Your task to perform on an android device: turn off notifications in google photos Image 0: 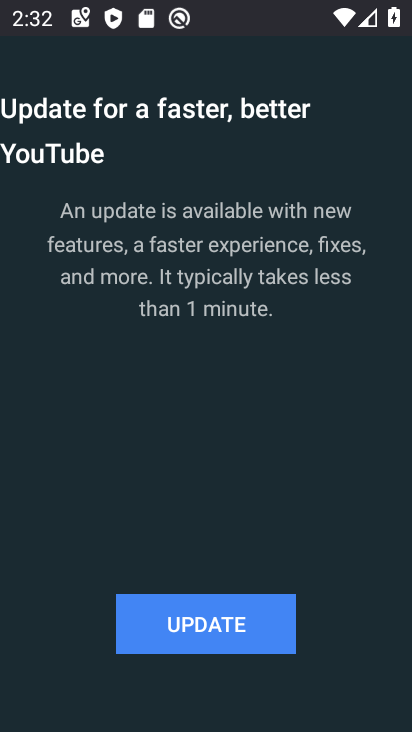
Step 0: press home button
Your task to perform on an android device: turn off notifications in google photos Image 1: 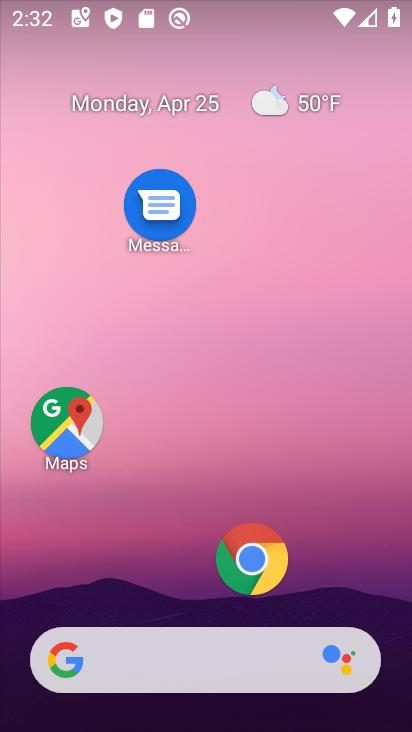
Step 1: drag from (172, 462) to (213, 13)
Your task to perform on an android device: turn off notifications in google photos Image 2: 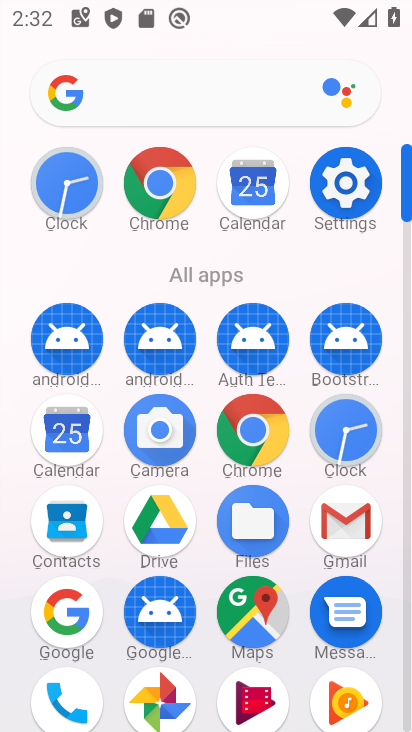
Step 2: click (177, 696)
Your task to perform on an android device: turn off notifications in google photos Image 3: 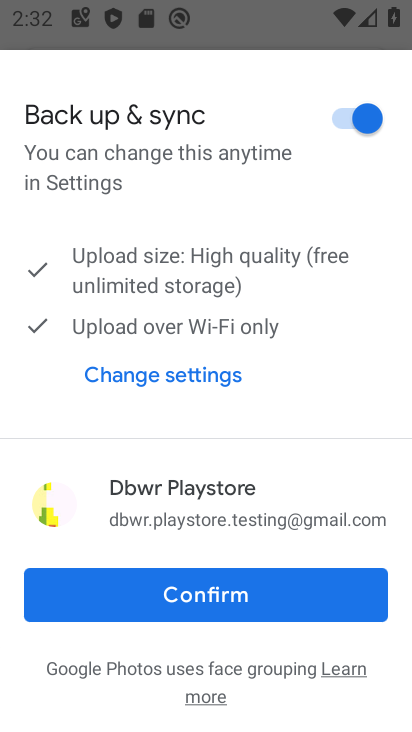
Step 3: click (252, 590)
Your task to perform on an android device: turn off notifications in google photos Image 4: 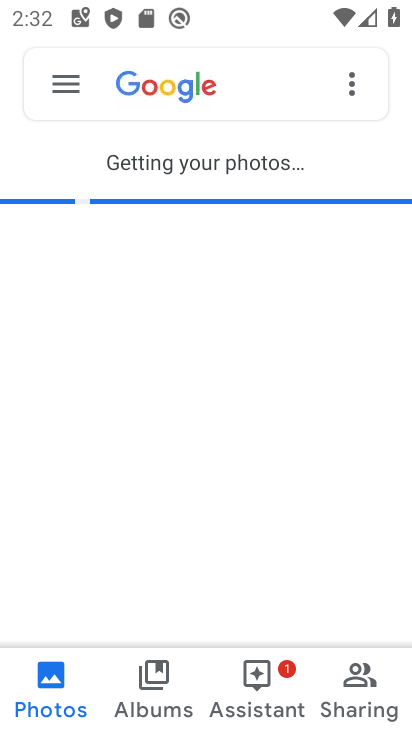
Step 4: click (67, 86)
Your task to perform on an android device: turn off notifications in google photos Image 5: 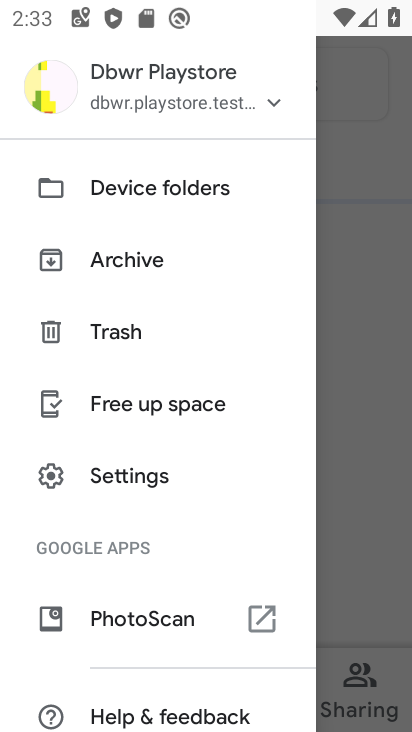
Step 5: click (131, 473)
Your task to perform on an android device: turn off notifications in google photos Image 6: 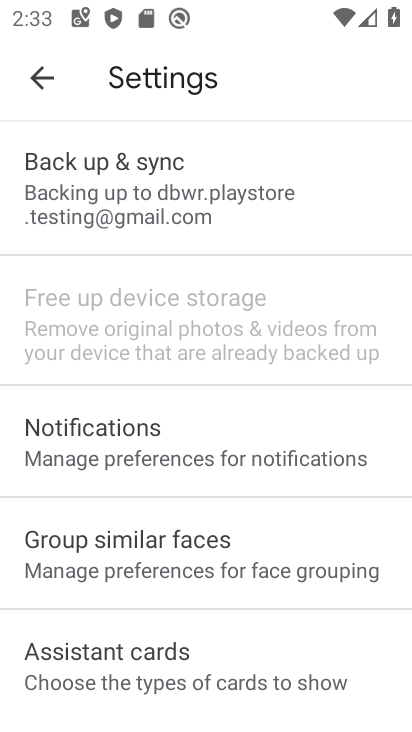
Step 6: click (148, 461)
Your task to perform on an android device: turn off notifications in google photos Image 7: 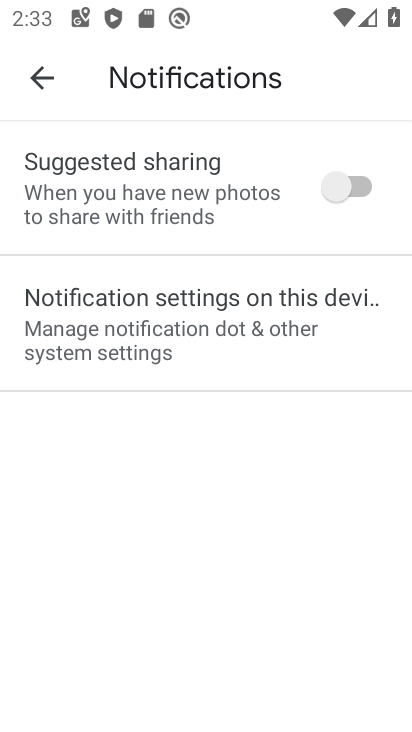
Step 7: click (157, 349)
Your task to perform on an android device: turn off notifications in google photos Image 8: 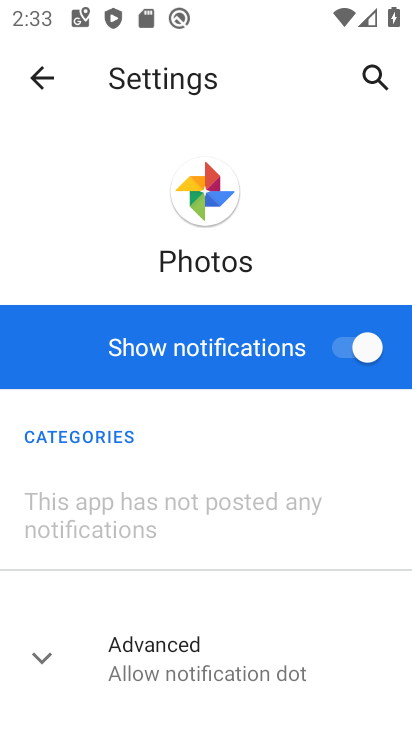
Step 8: drag from (182, 503) to (181, 277)
Your task to perform on an android device: turn off notifications in google photos Image 9: 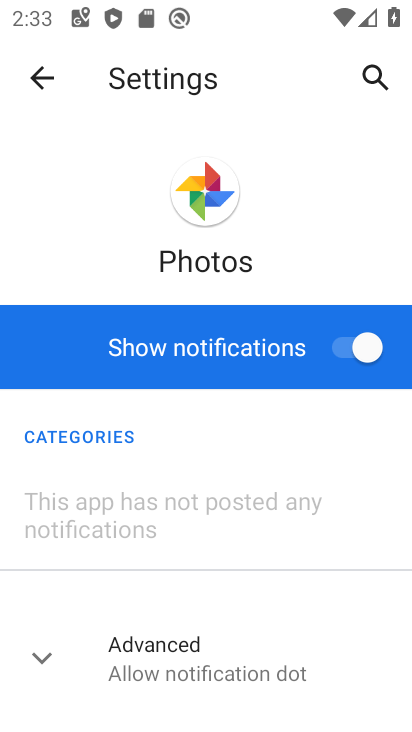
Step 9: click (325, 344)
Your task to perform on an android device: turn off notifications in google photos Image 10: 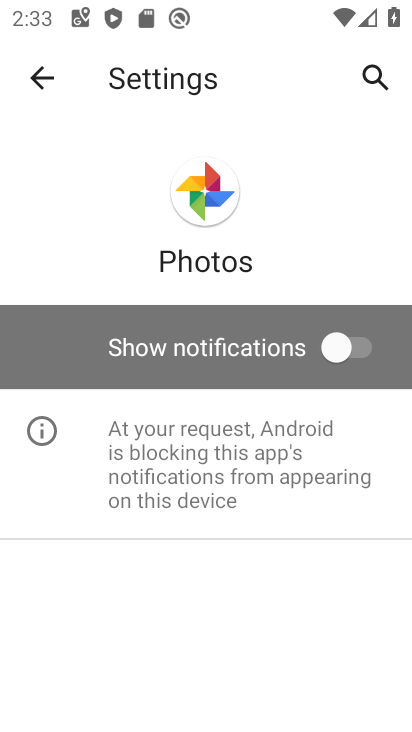
Step 10: task complete